Your task to perform on an android device: turn vacation reply on in the gmail app Image 0: 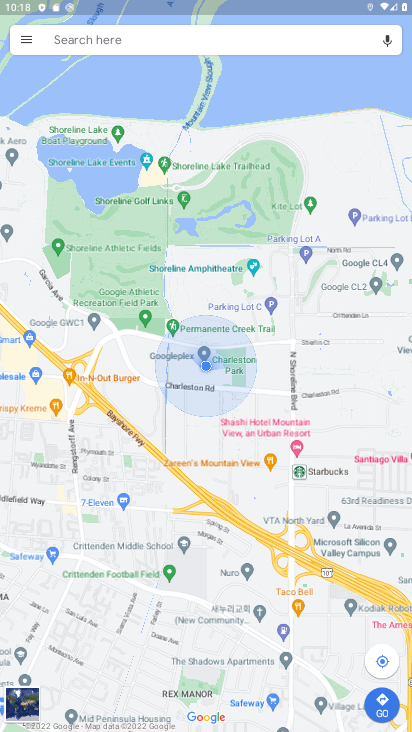
Step 0: press home button
Your task to perform on an android device: turn vacation reply on in the gmail app Image 1: 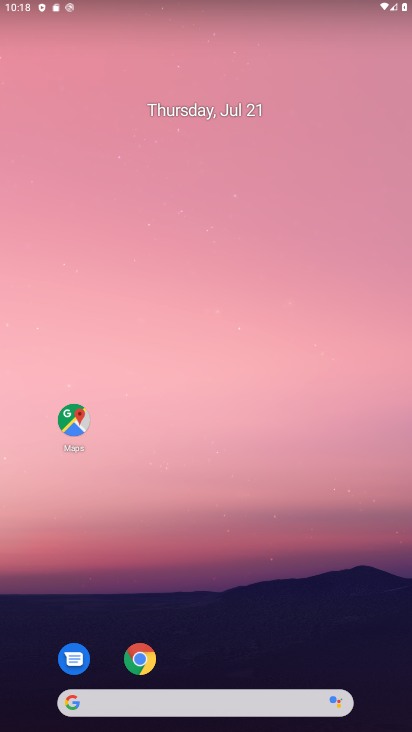
Step 1: drag from (202, 727) to (194, 139)
Your task to perform on an android device: turn vacation reply on in the gmail app Image 2: 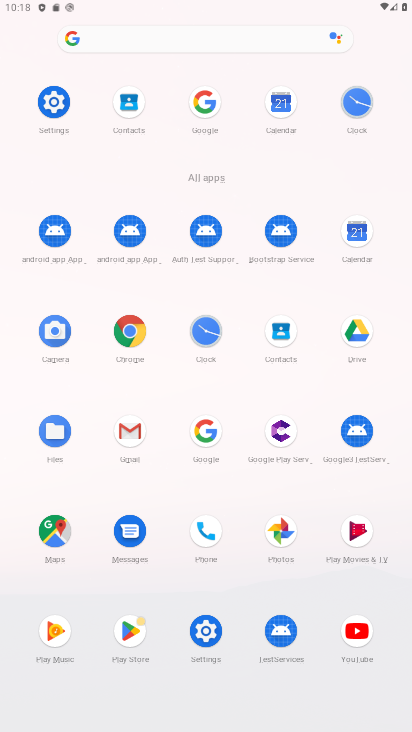
Step 2: click (133, 431)
Your task to perform on an android device: turn vacation reply on in the gmail app Image 3: 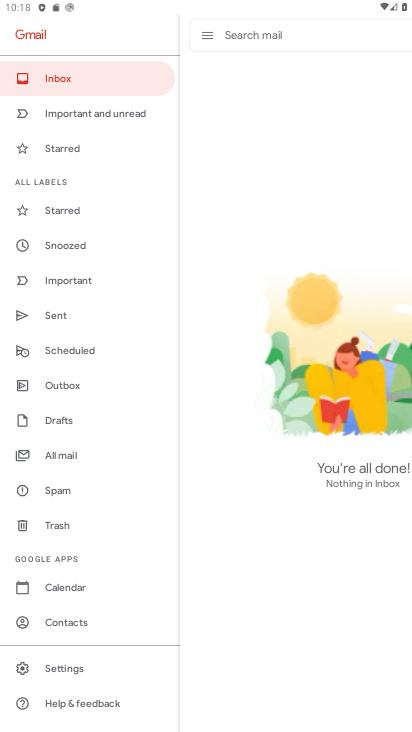
Step 3: click (69, 664)
Your task to perform on an android device: turn vacation reply on in the gmail app Image 4: 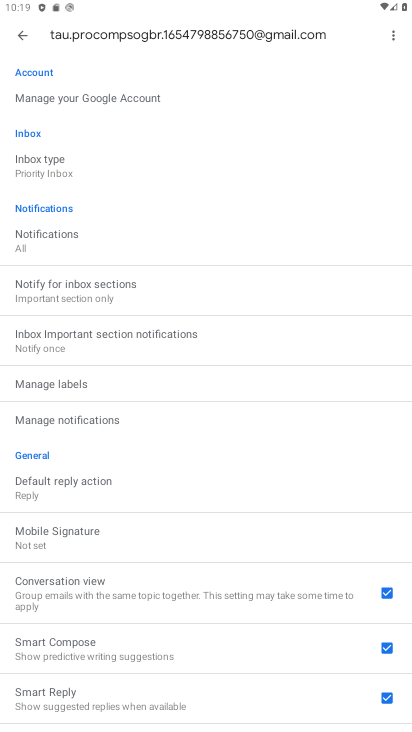
Step 4: drag from (144, 659) to (136, 431)
Your task to perform on an android device: turn vacation reply on in the gmail app Image 5: 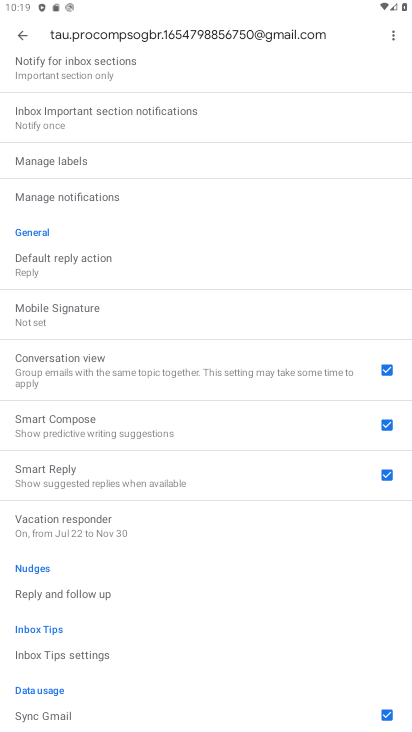
Step 5: click (94, 526)
Your task to perform on an android device: turn vacation reply on in the gmail app Image 6: 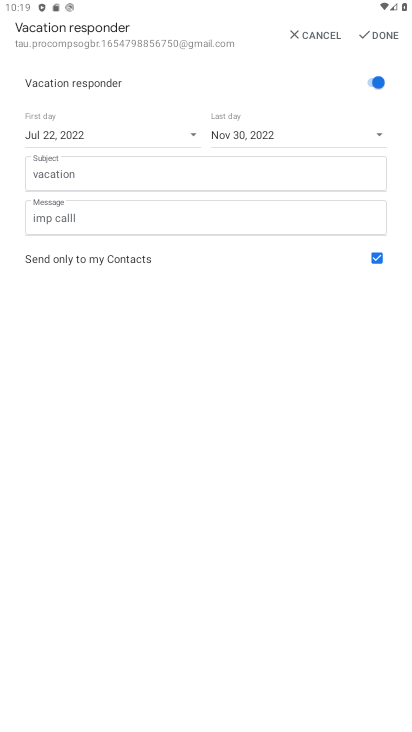
Step 6: task complete